Your task to perform on an android device: What's the weather? Image 0: 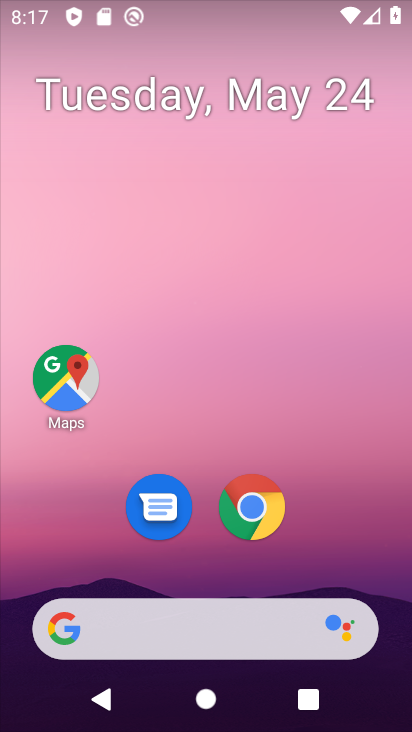
Step 0: drag from (2, 211) to (401, 613)
Your task to perform on an android device: What's the weather? Image 1: 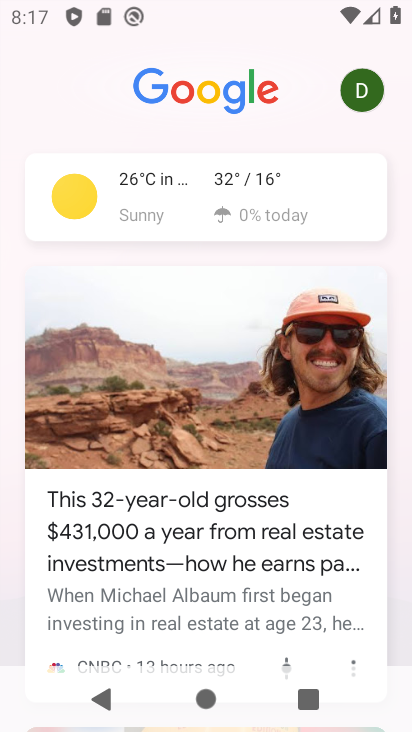
Step 1: click (202, 204)
Your task to perform on an android device: What's the weather? Image 2: 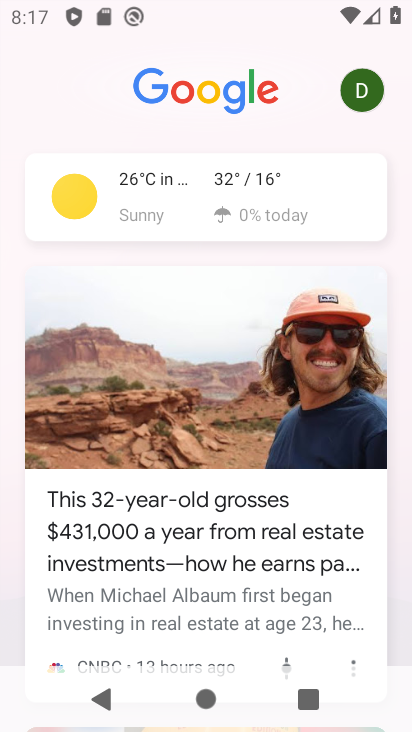
Step 2: click (203, 202)
Your task to perform on an android device: What's the weather? Image 3: 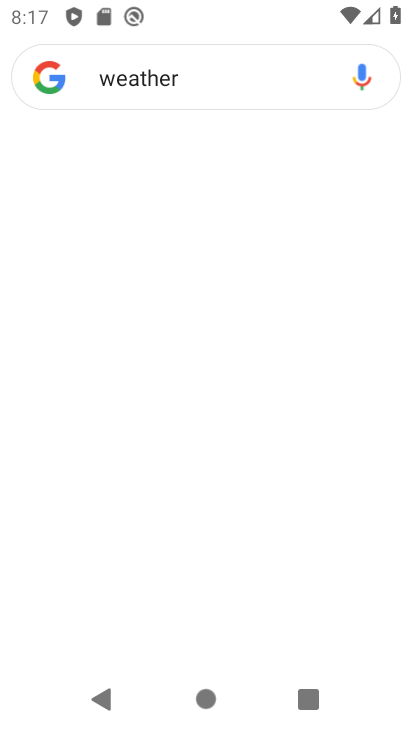
Step 3: click (203, 202)
Your task to perform on an android device: What's the weather? Image 4: 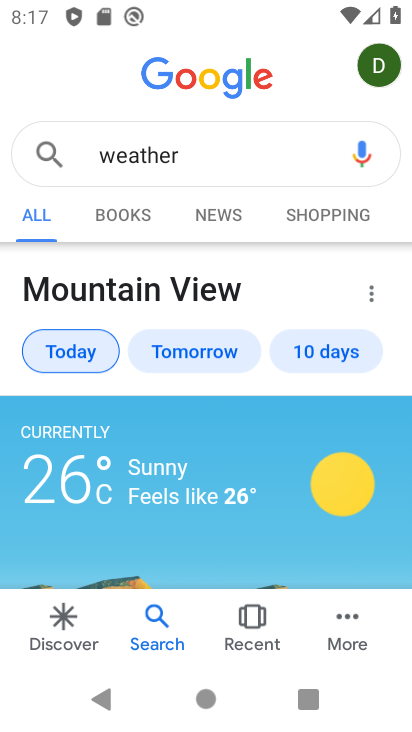
Step 4: drag from (204, 604) to (188, 318)
Your task to perform on an android device: What's the weather? Image 5: 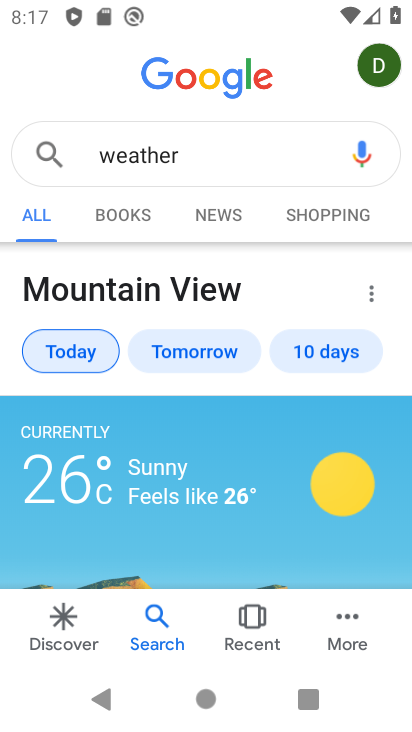
Step 5: drag from (204, 507) to (233, 177)
Your task to perform on an android device: What's the weather? Image 6: 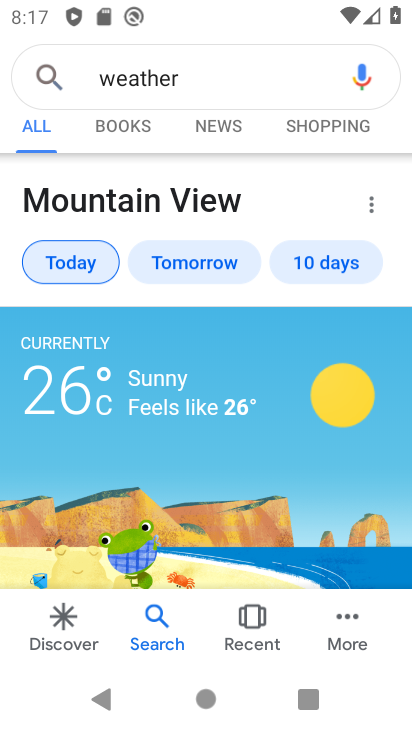
Step 6: drag from (226, 494) to (236, 148)
Your task to perform on an android device: What's the weather? Image 7: 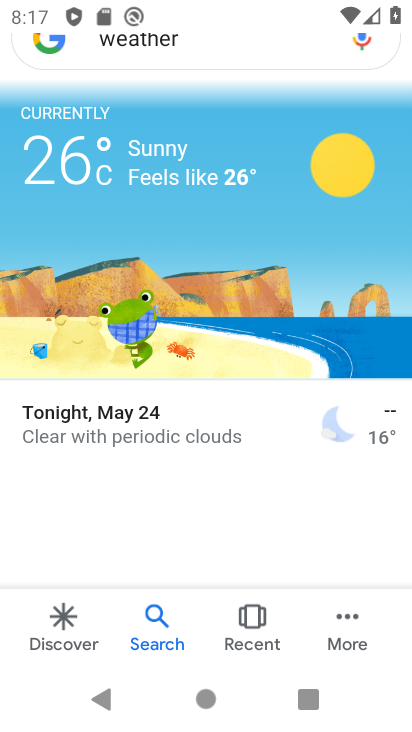
Step 7: drag from (228, 428) to (205, 67)
Your task to perform on an android device: What's the weather? Image 8: 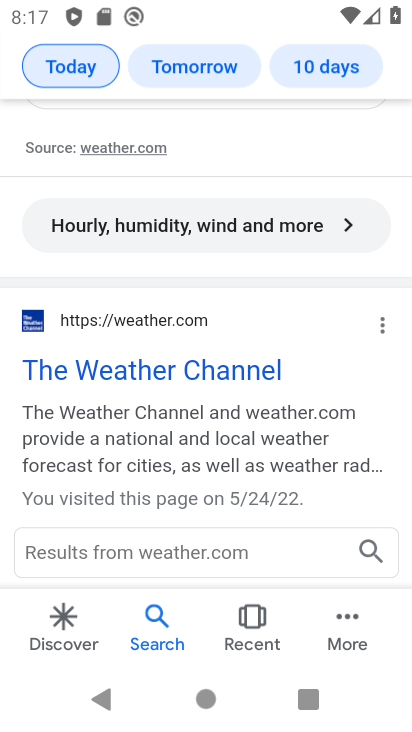
Step 8: drag from (184, 483) to (183, 120)
Your task to perform on an android device: What's the weather? Image 9: 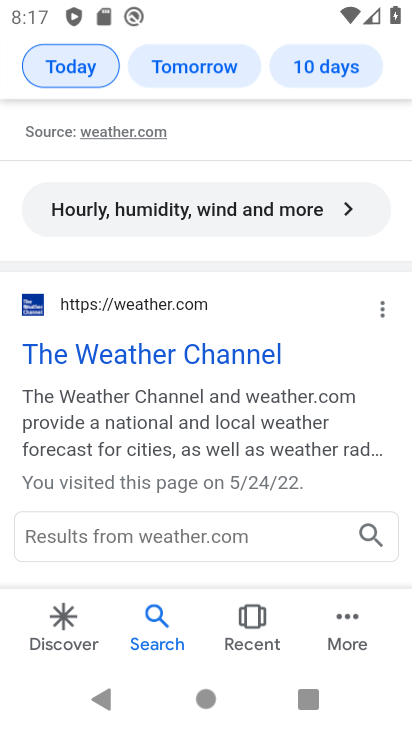
Step 9: drag from (237, 457) to (224, 37)
Your task to perform on an android device: What's the weather? Image 10: 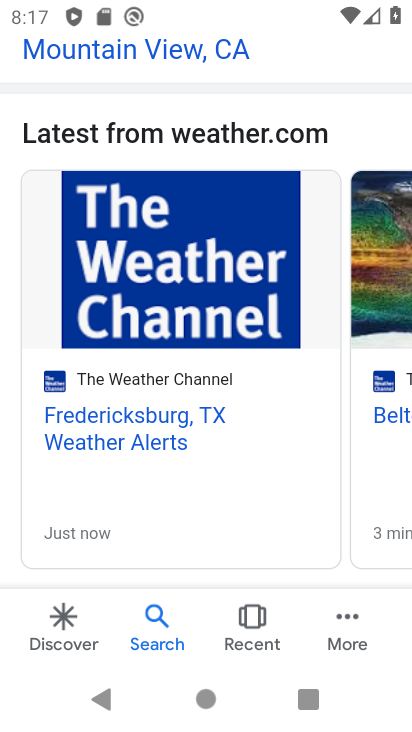
Step 10: drag from (233, 519) to (241, 61)
Your task to perform on an android device: What's the weather? Image 11: 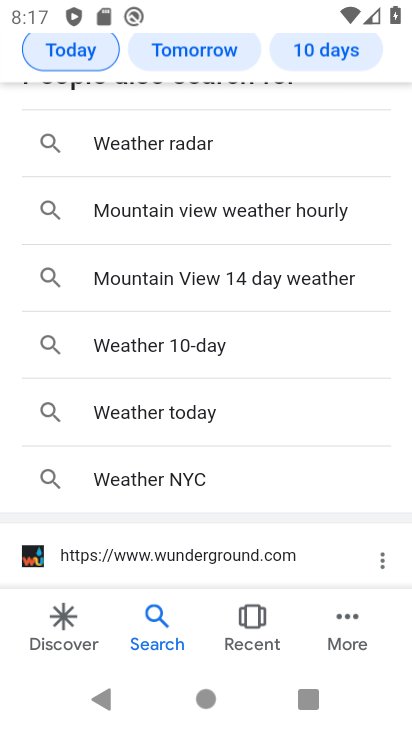
Step 11: drag from (196, 469) to (194, 137)
Your task to perform on an android device: What's the weather? Image 12: 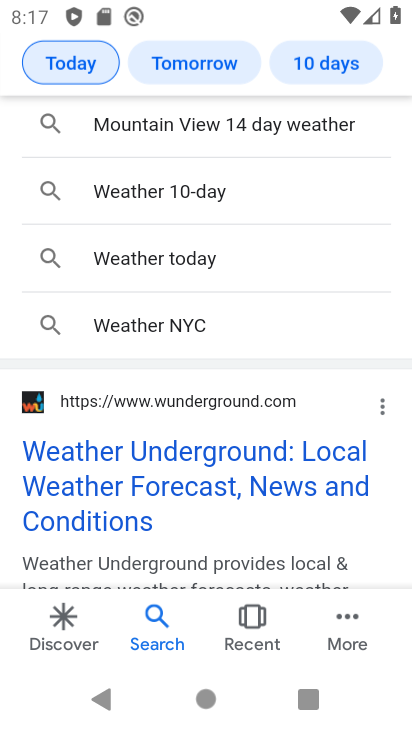
Step 12: drag from (233, 627) to (221, 227)
Your task to perform on an android device: What's the weather? Image 13: 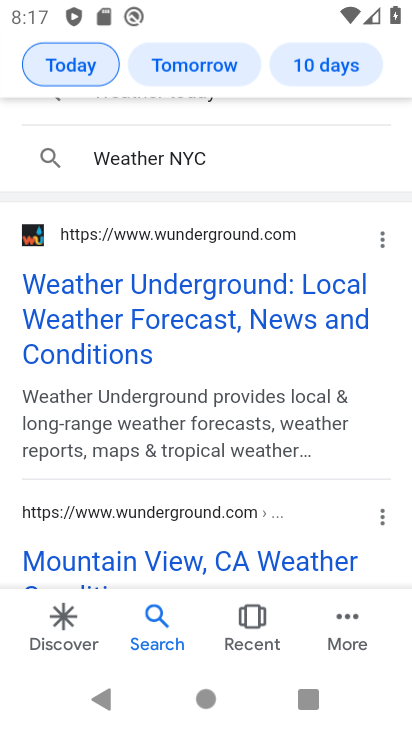
Step 13: drag from (241, 488) to (196, 97)
Your task to perform on an android device: What's the weather? Image 14: 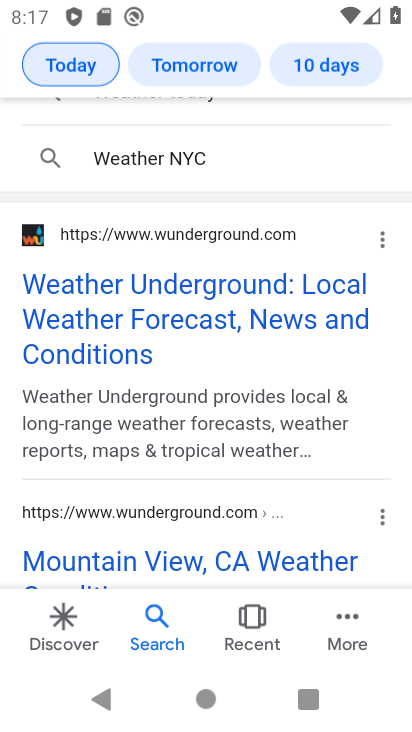
Step 14: drag from (265, 397) to (263, 161)
Your task to perform on an android device: What's the weather? Image 15: 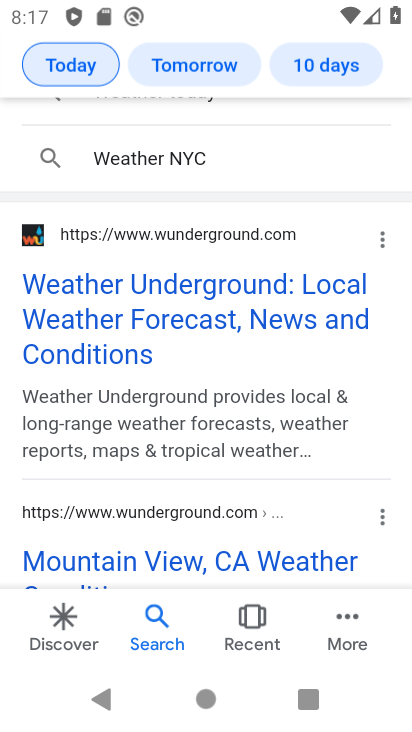
Step 15: drag from (284, 353) to (284, 176)
Your task to perform on an android device: What's the weather? Image 16: 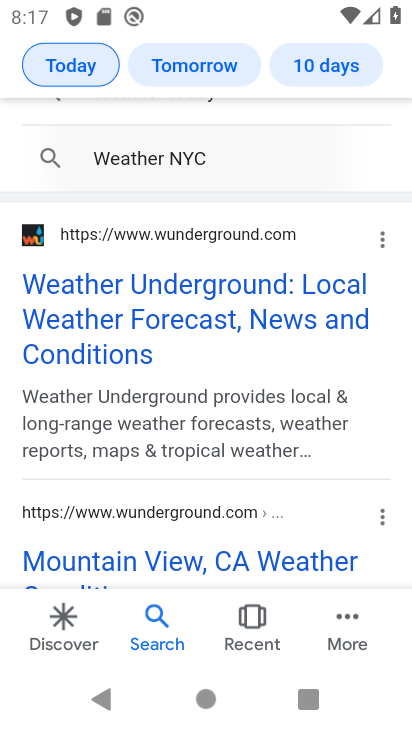
Step 16: drag from (278, 414) to (269, 317)
Your task to perform on an android device: What's the weather? Image 17: 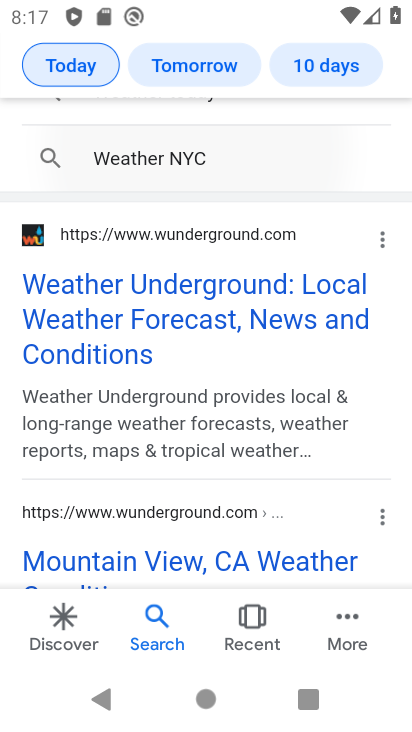
Step 17: drag from (241, 467) to (204, 233)
Your task to perform on an android device: What's the weather? Image 18: 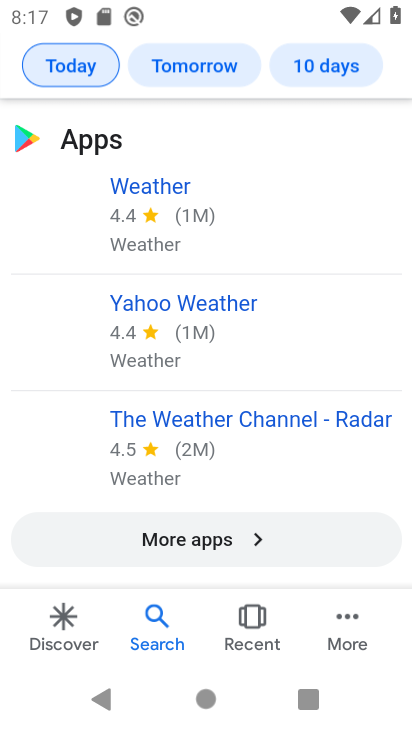
Step 18: drag from (245, 318) to (247, 569)
Your task to perform on an android device: What's the weather? Image 19: 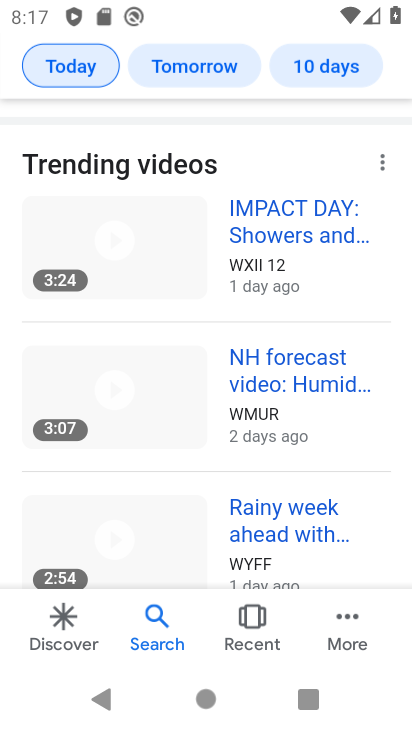
Step 19: drag from (175, 282) to (235, 494)
Your task to perform on an android device: What's the weather? Image 20: 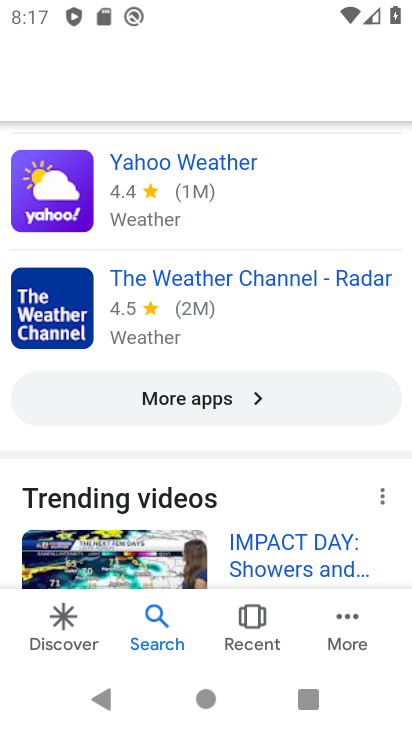
Step 20: click (260, 452)
Your task to perform on an android device: What's the weather? Image 21: 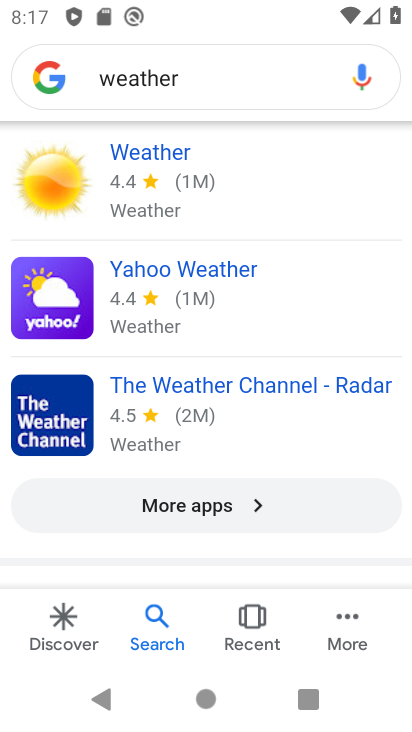
Step 21: drag from (209, 261) to (240, 475)
Your task to perform on an android device: What's the weather? Image 22: 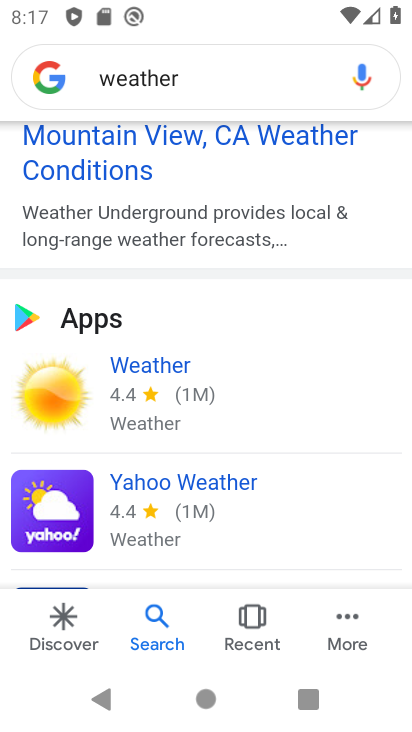
Step 22: drag from (228, 371) to (251, 564)
Your task to perform on an android device: What's the weather? Image 23: 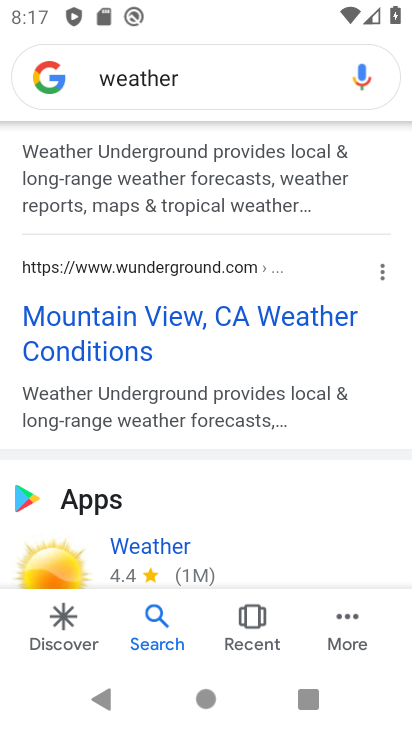
Step 23: drag from (228, 324) to (270, 571)
Your task to perform on an android device: What's the weather? Image 24: 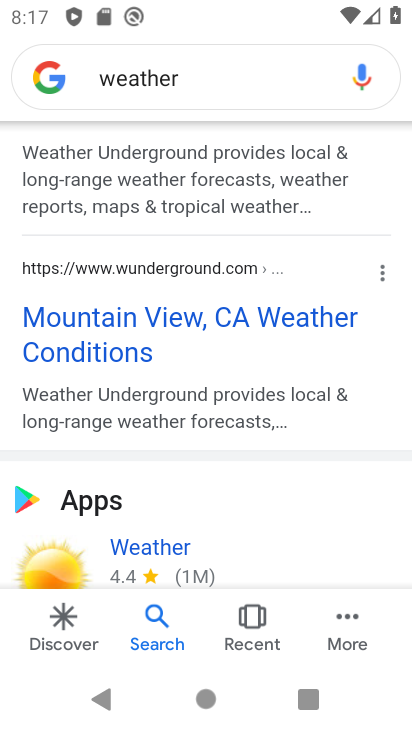
Step 24: drag from (256, 302) to (279, 531)
Your task to perform on an android device: What's the weather? Image 25: 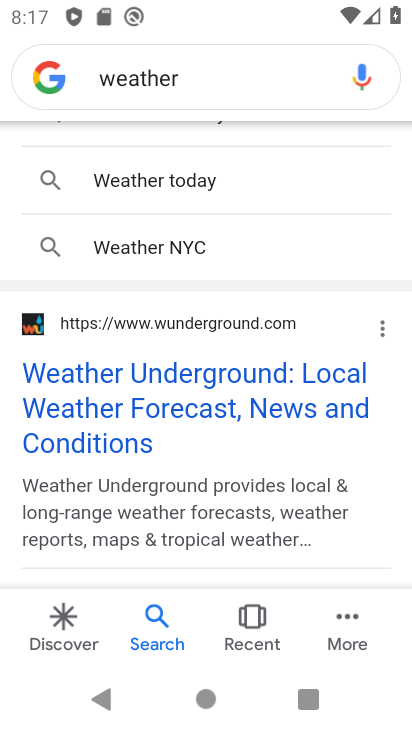
Step 25: drag from (244, 272) to (266, 532)
Your task to perform on an android device: What's the weather? Image 26: 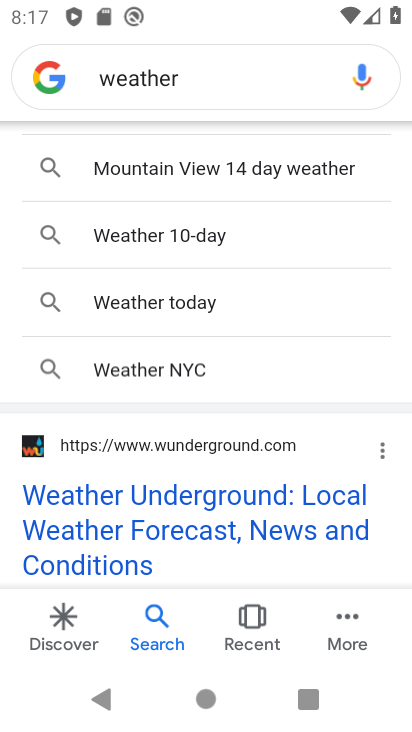
Step 26: drag from (262, 326) to (263, 525)
Your task to perform on an android device: What's the weather? Image 27: 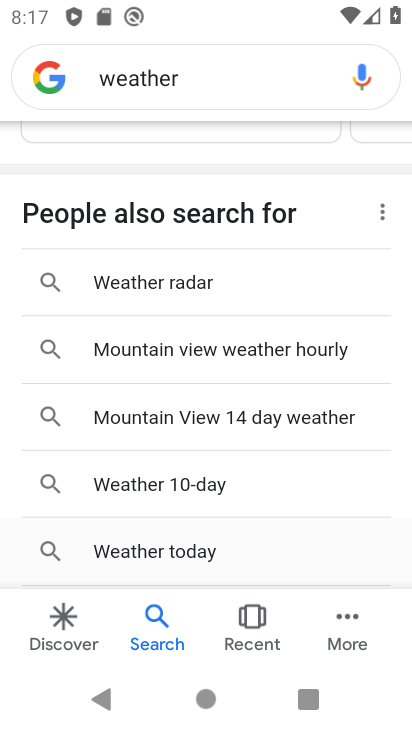
Step 27: drag from (246, 252) to (244, 518)
Your task to perform on an android device: What's the weather? Image 28: 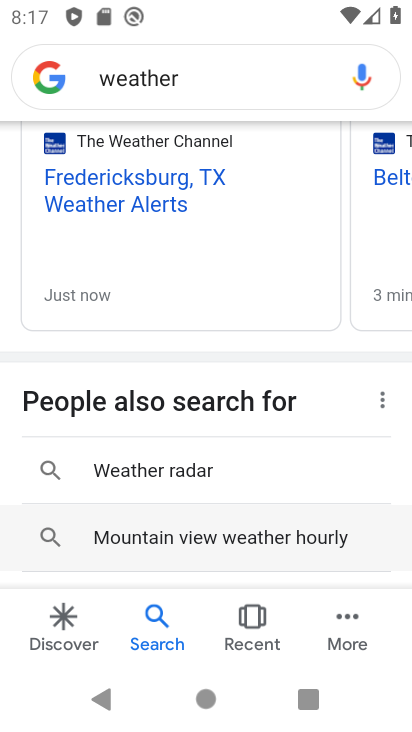
Step 28: drag from (214, 314) to (226, 492)
Your task to perform on an android device: What's the weather? Image 29: 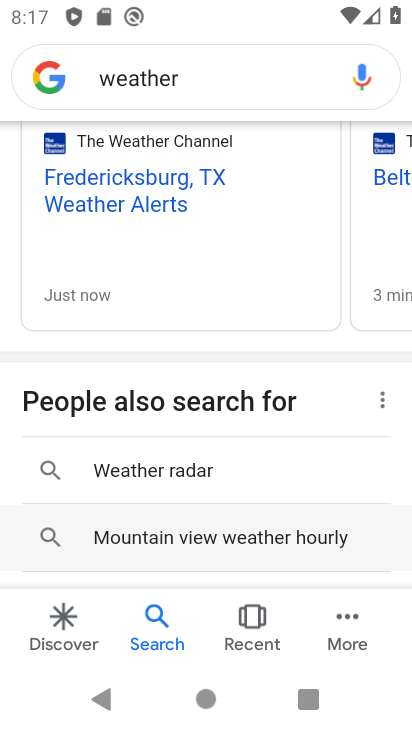
Step 29: drag from (241, 336) to (259, 501)
Your task to perform on an android device: What's the weather? Image 30: 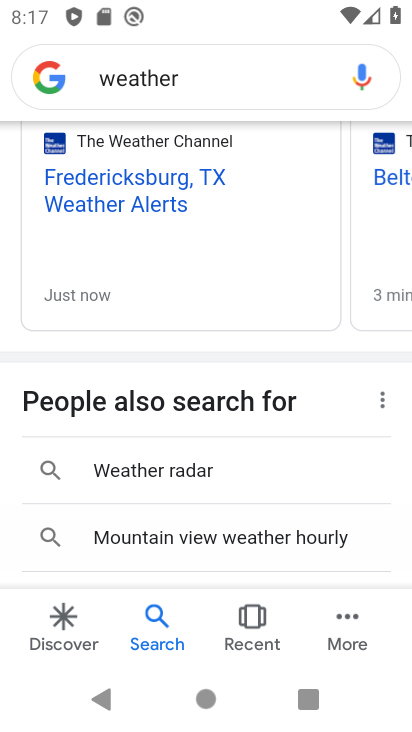
Step 30: drag from (280, 281) to (314, 461)
Your task to perform on an android device: What's the weather? Image 31: 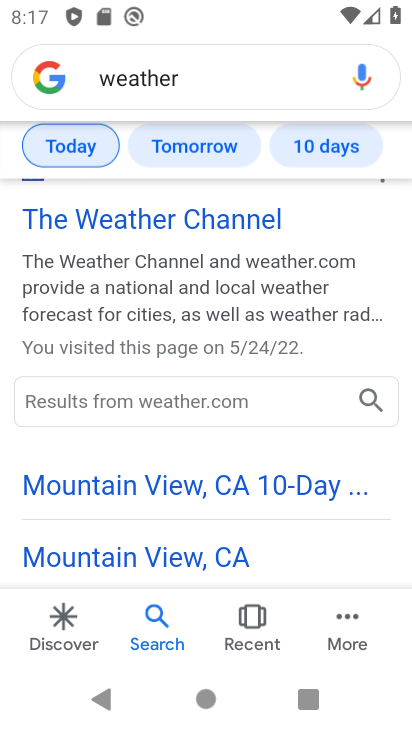
Step 31: drag from (270, 325) to (260, 478)
Your task to perform on an android device: What's the weather? Image 32: 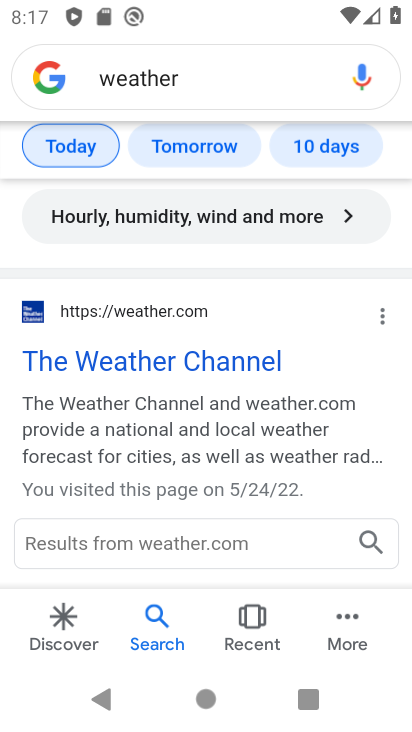
Step 32: drag from (235, 195) to (250, 504)
Your task to perform on an android device: What's the weather? Image 33: 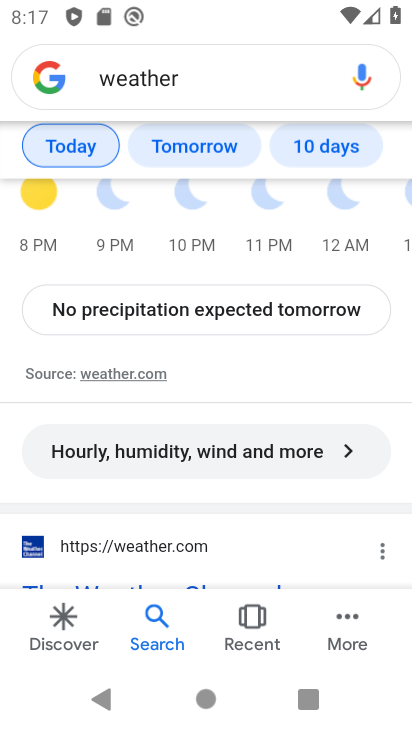
Step 33: drag from (229, 509) to (220, 451)
Your task to perform on an android device: What's the weather? Image 34: 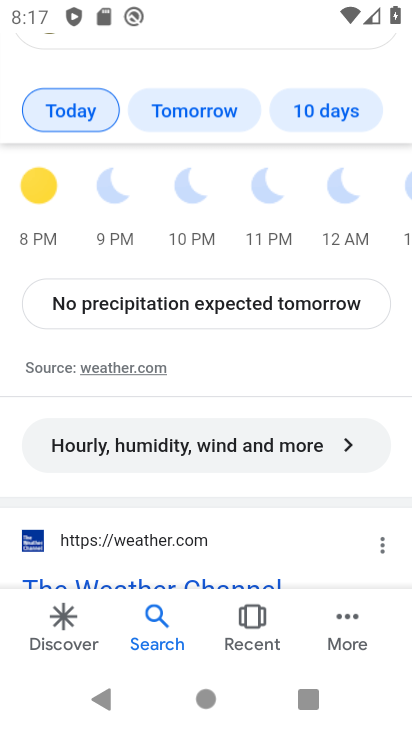
Step 34: drag from (205, 267) to (162, 444)
Your task to perform on an android device: What's the weather? Image 35: 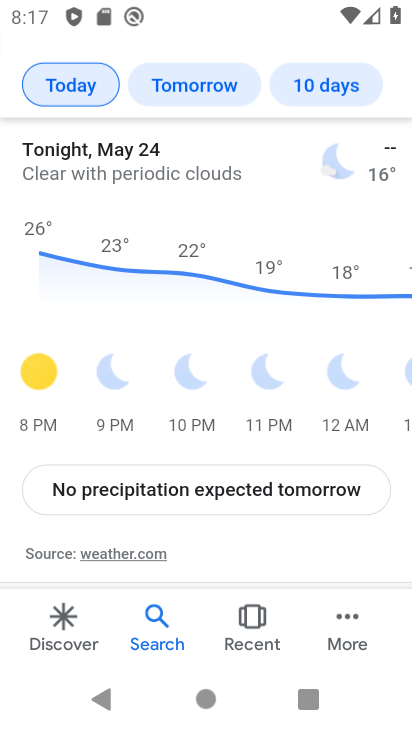
Step 35: drag from (194, 434) to (200, 487)
Your task to perform on an android device: What's the weather? Image 36: 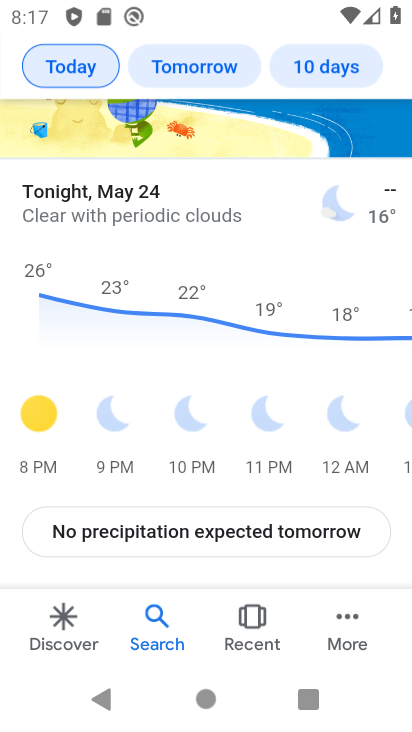
Step 36: click (296, 511)
Your task to perform on an android device: What's the weather? Image 37: 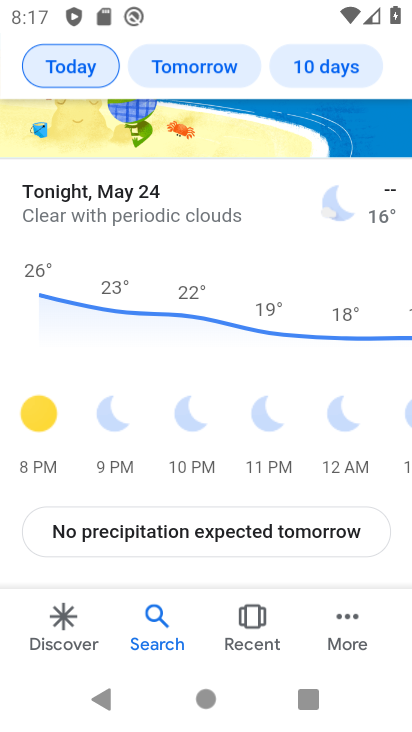
Step 37: drag from (277, 384) to (356, 519)
Your task to perform on an android device: What's the weather? Image 38: 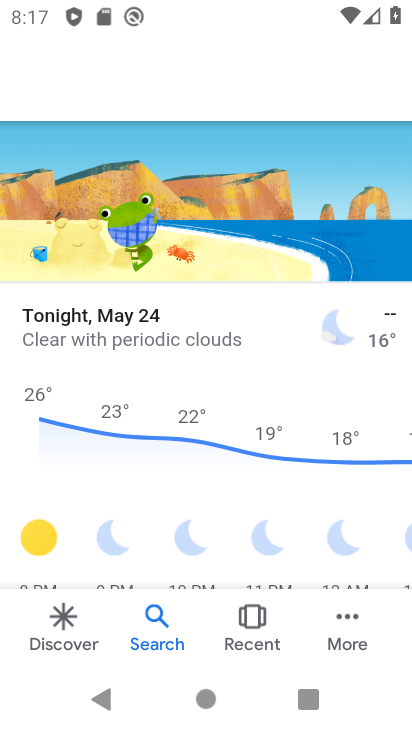
Step 38: click (354, 475)
Your task to perform on an android device: What's the weather? Image 39: 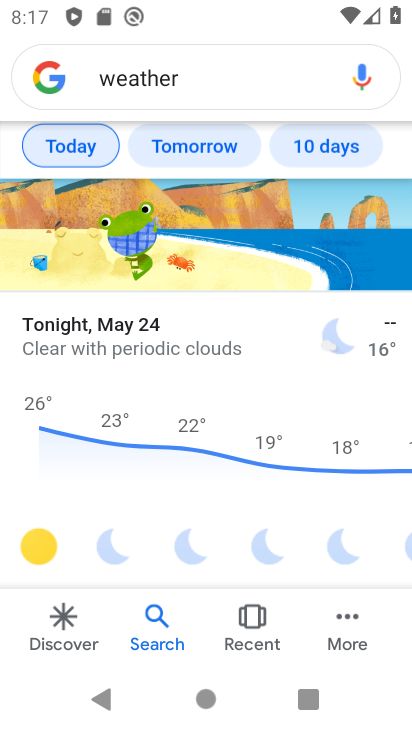
Step 39: task complete